Your task to perform on an android device: Go to Amazon Image 0: 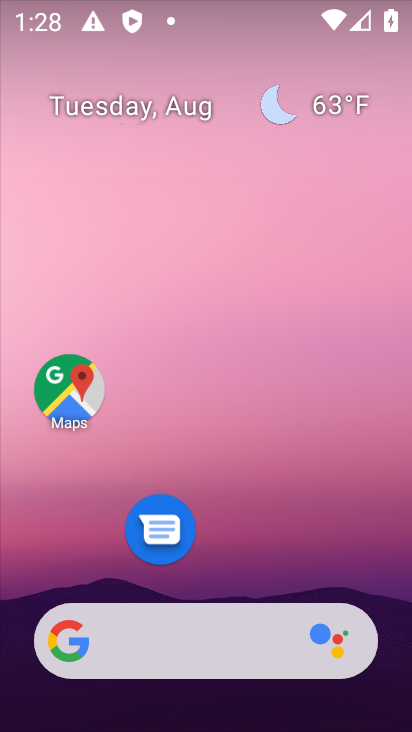
Step 0: drag from (288, 577) to (300, 270)
Your task to perform on an android device: Go to Amazon Image 1: 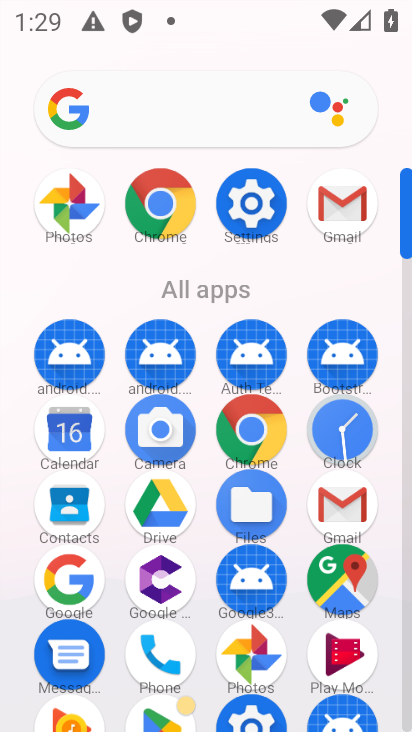
Step 1: click (180, 234)
Your task to perform on an android device: Go to Amazon Image 2: 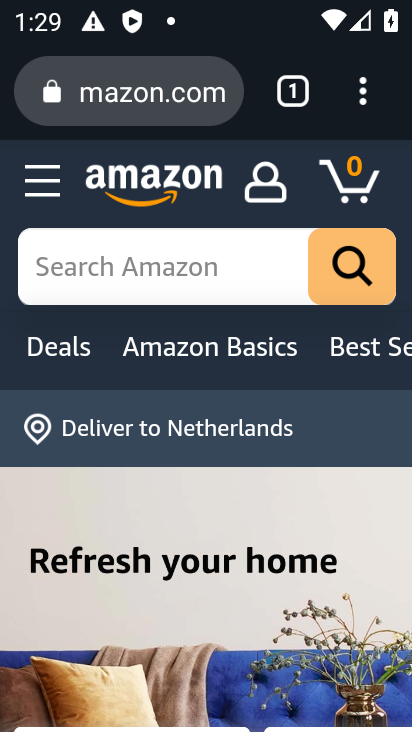
Step 2: click (356, 96)
Your task to perform on an android device: Go to Amazon Image 3: 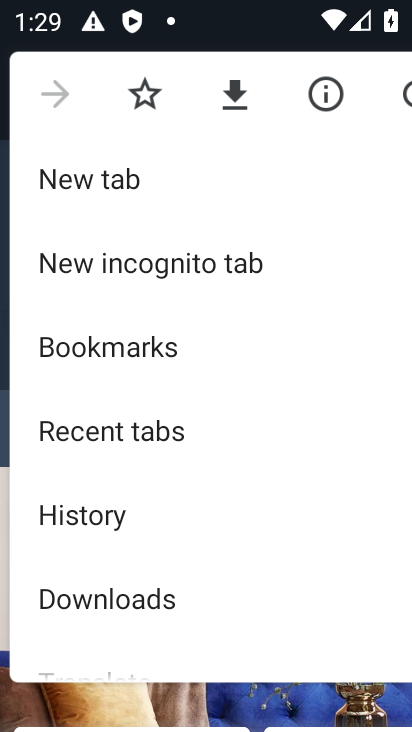
Step 3: task complete